Your task to perform on an android device: turn off javascript in the chrome app Image 0: 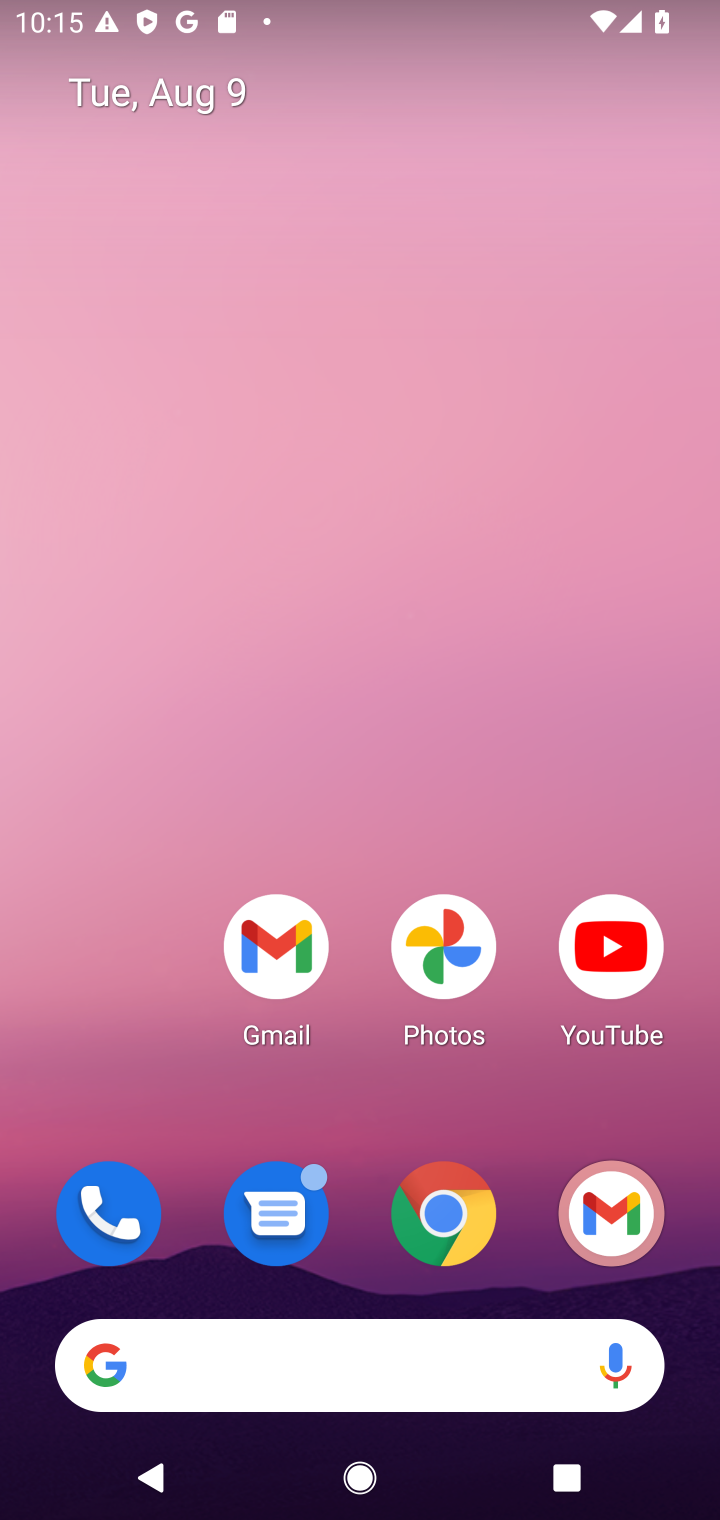
Step 0: press home button
Your task to perform on an android device: turn off javascript in the chrome app Image 1: 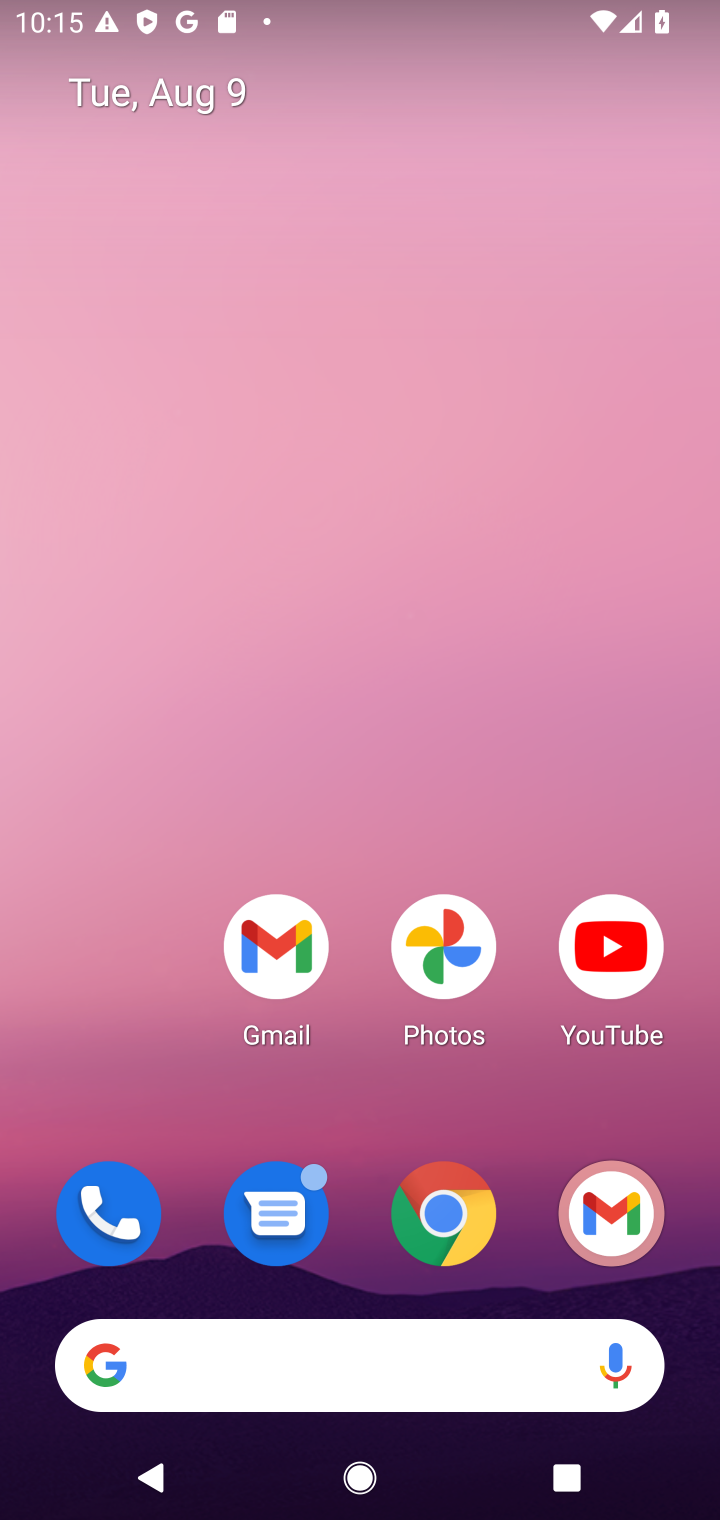
Step 1: click (424, 1261)
Your task to perform on an android device: turn off javascript in the chrome app Image 2: 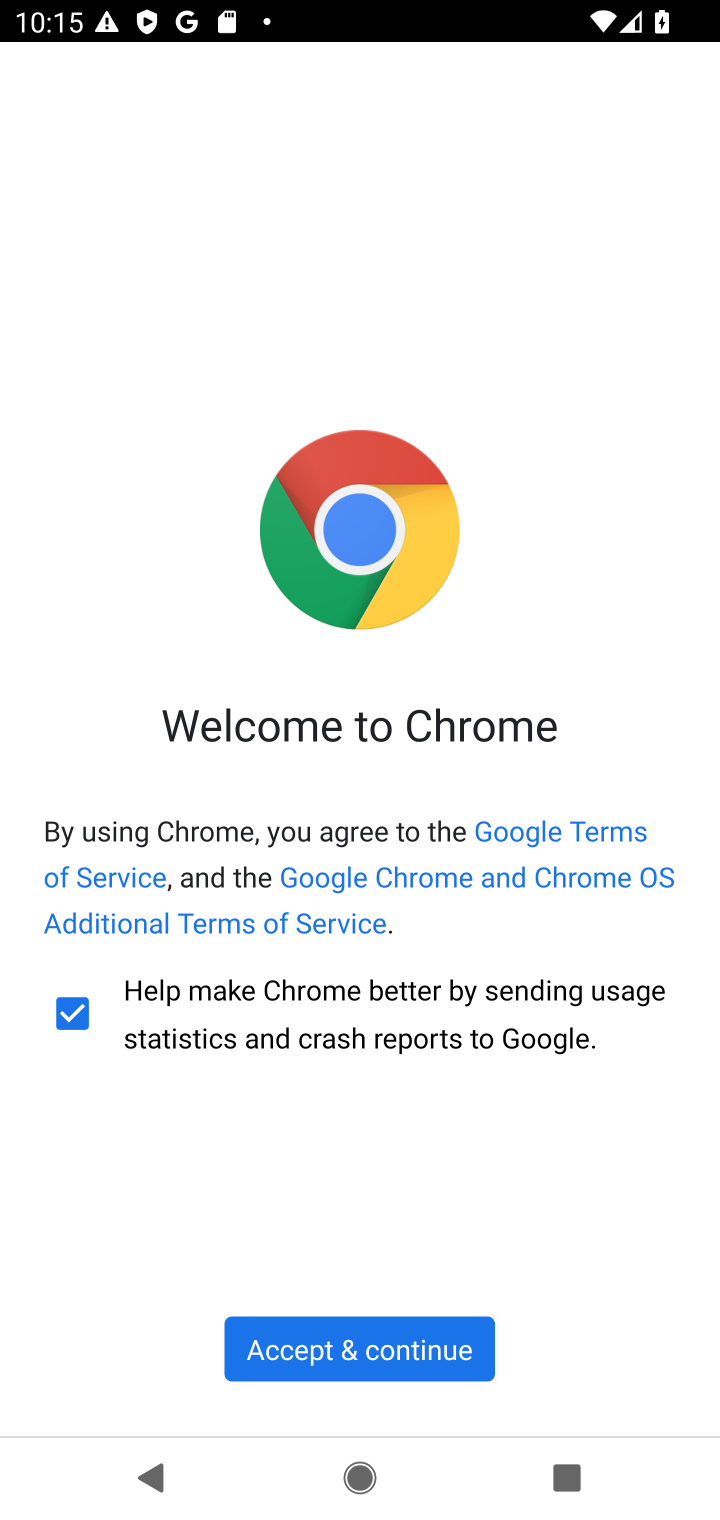
Step 2: click (444, 1346)
Your task to perform on an android device: turn off javascript in the chrome app Image 3: 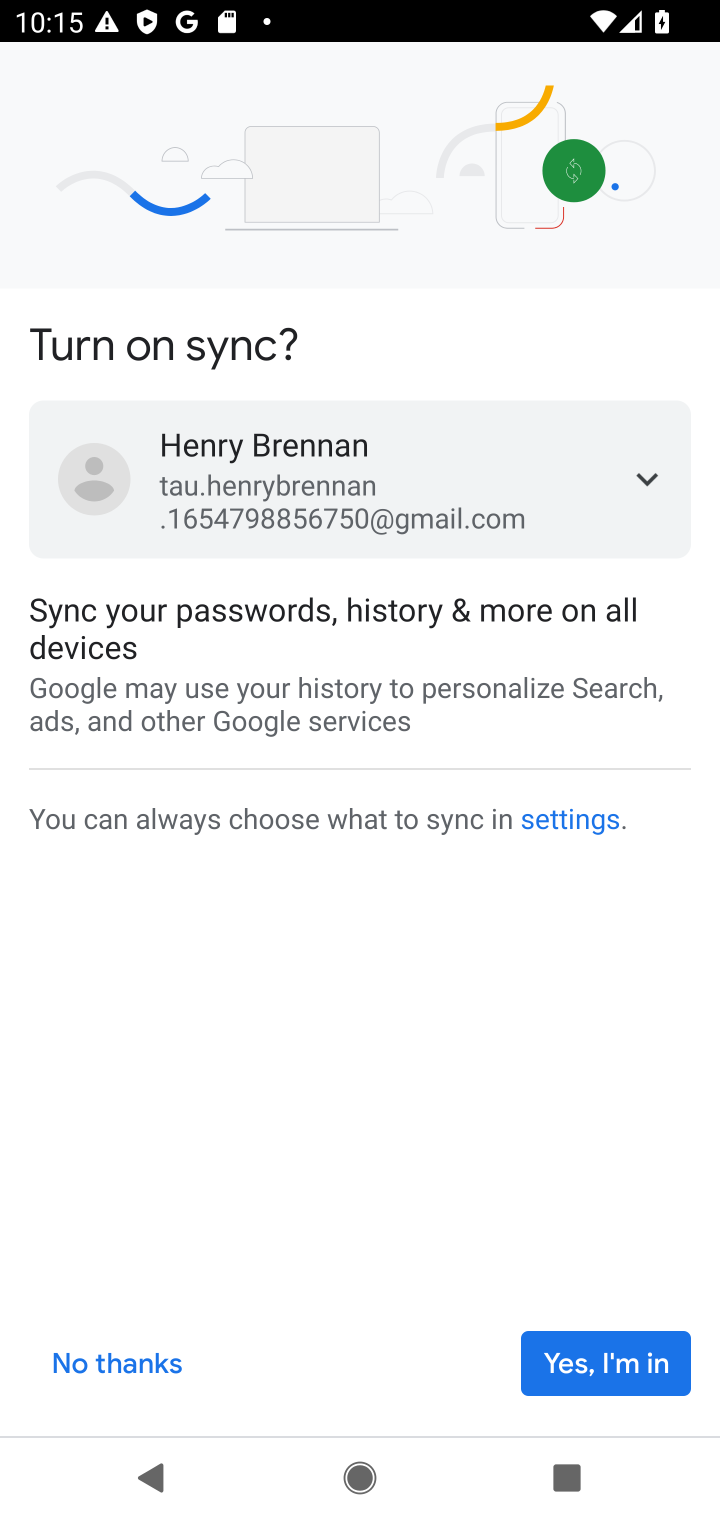
Step 3: click (643, 1361)
Your task to perform on an android device: turn off javascript in the chrome app Image 4: 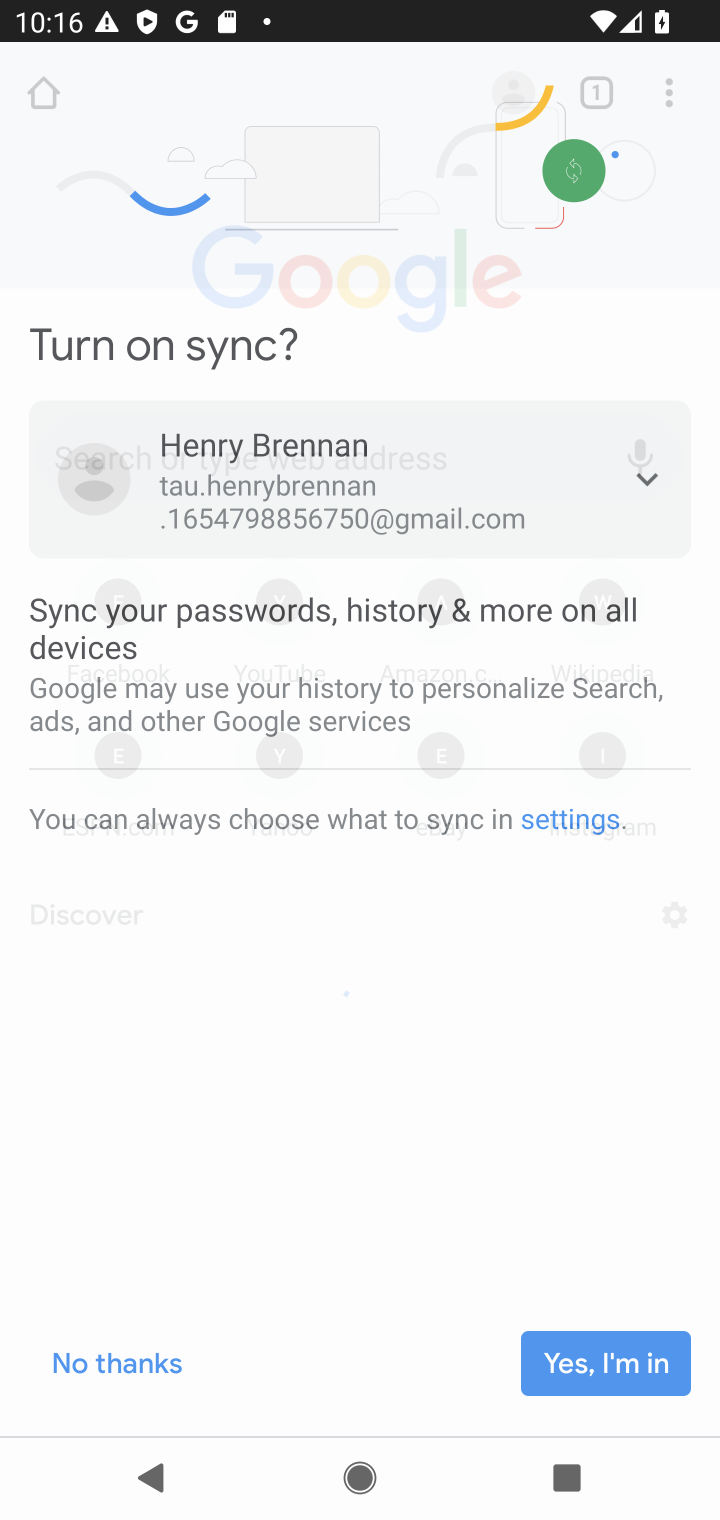
Step 4: click (632, 1348)
Your task to perform on an android device: turn off javascript in the chrome app Image 5: 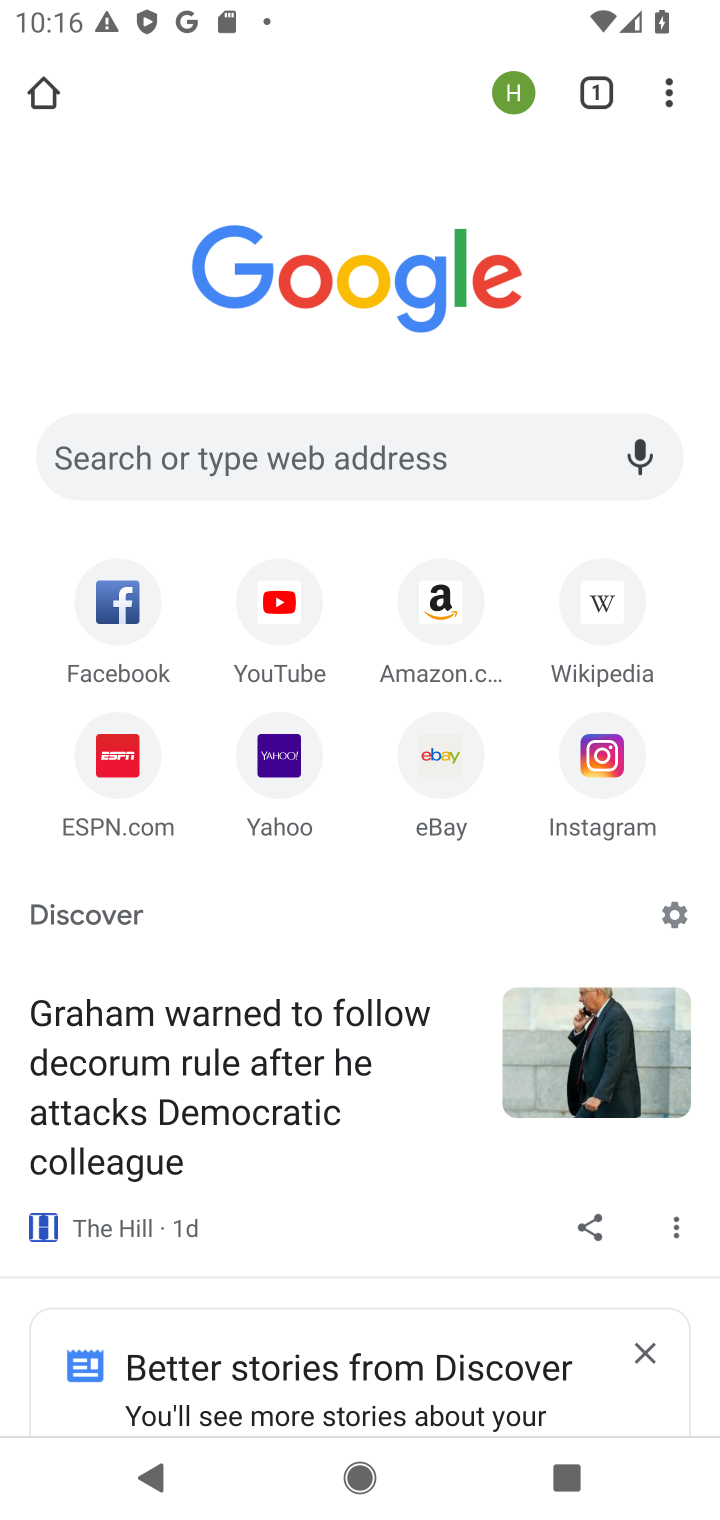
Step 5: drag from (664, 107) to (392, 840)
Your task to perform on an android device: turn off javascript in the chrome app Image 6: 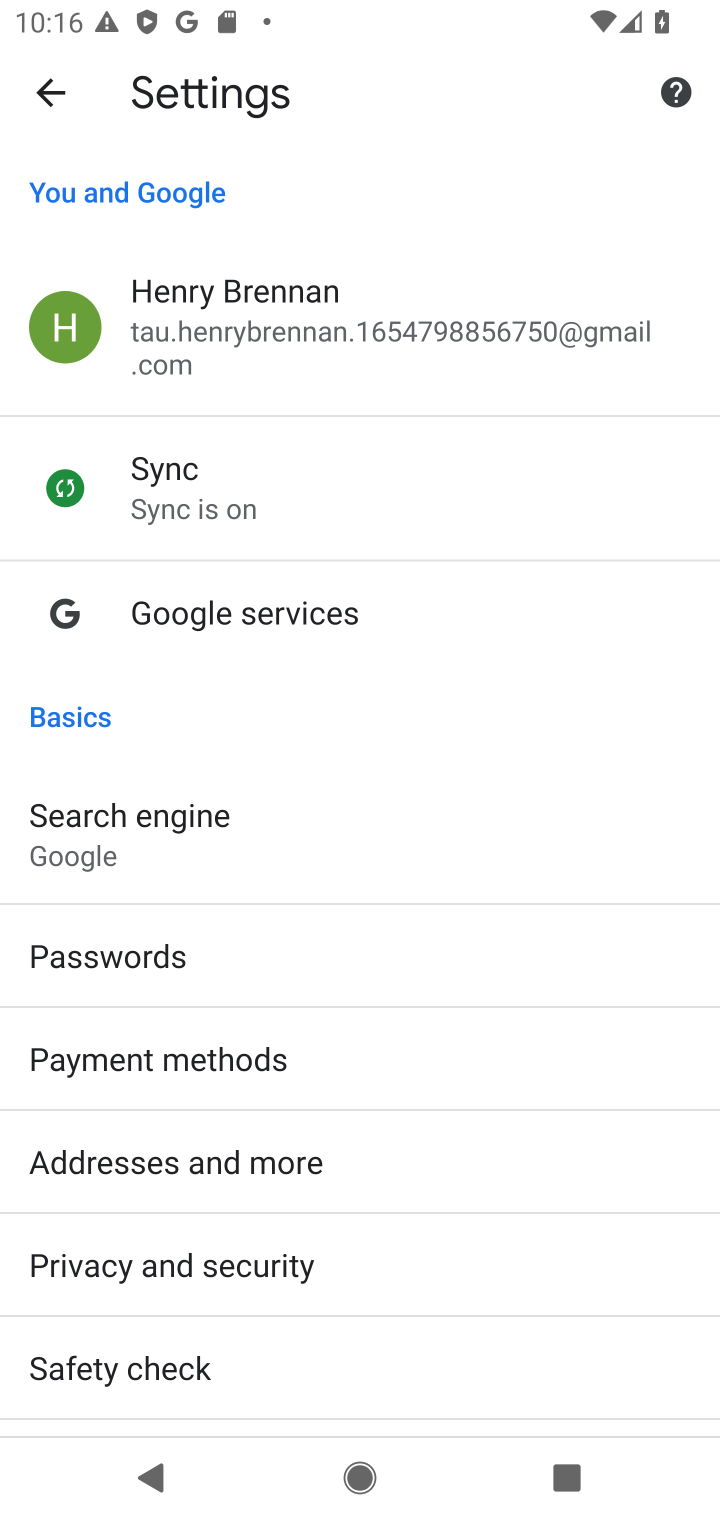
Step 6: drag from (237, 1201) to (244, 439)
Your task to perform on an android device: turn off javascript in the chrome app Image 7: 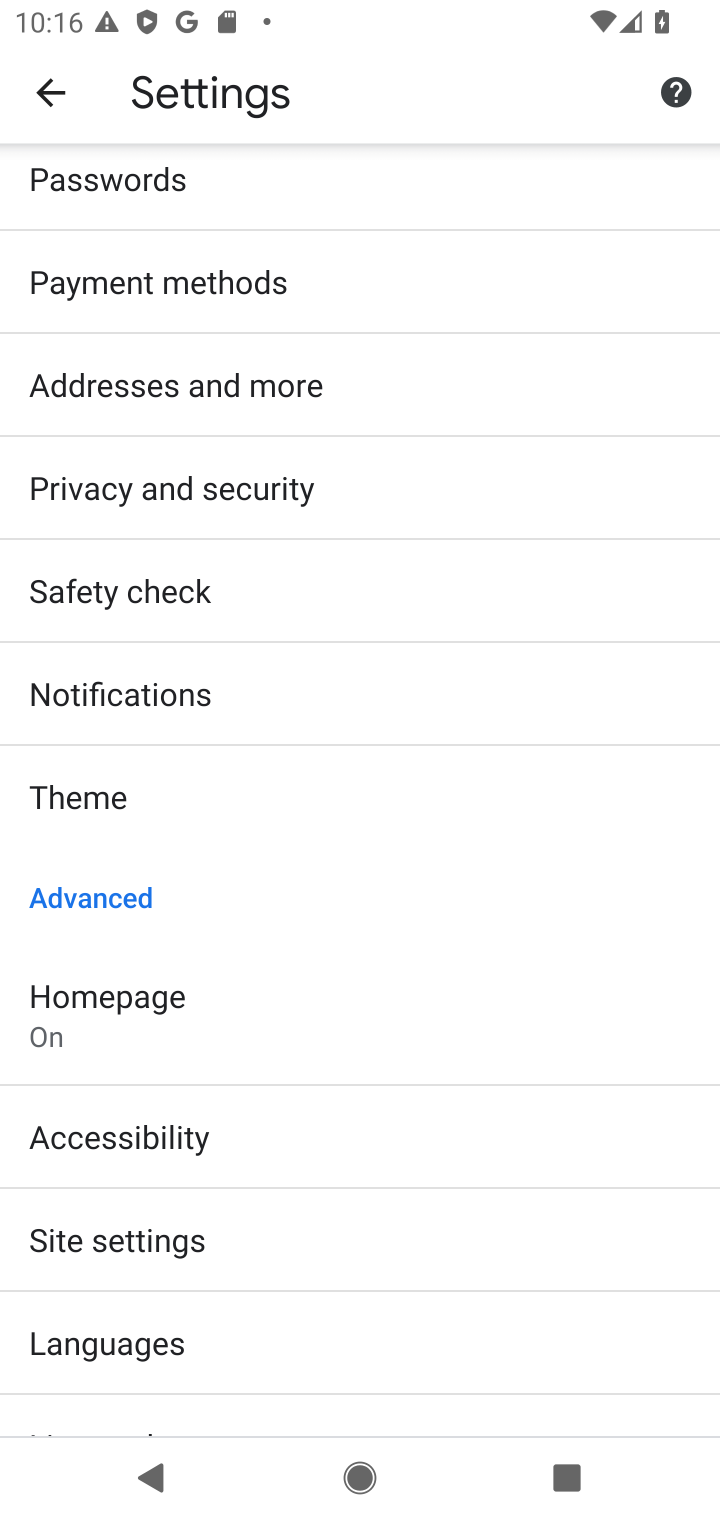
Step 7: click (207, 1241)
Your task to perform on an android device: turn off javascript in the chrome app Image 8: 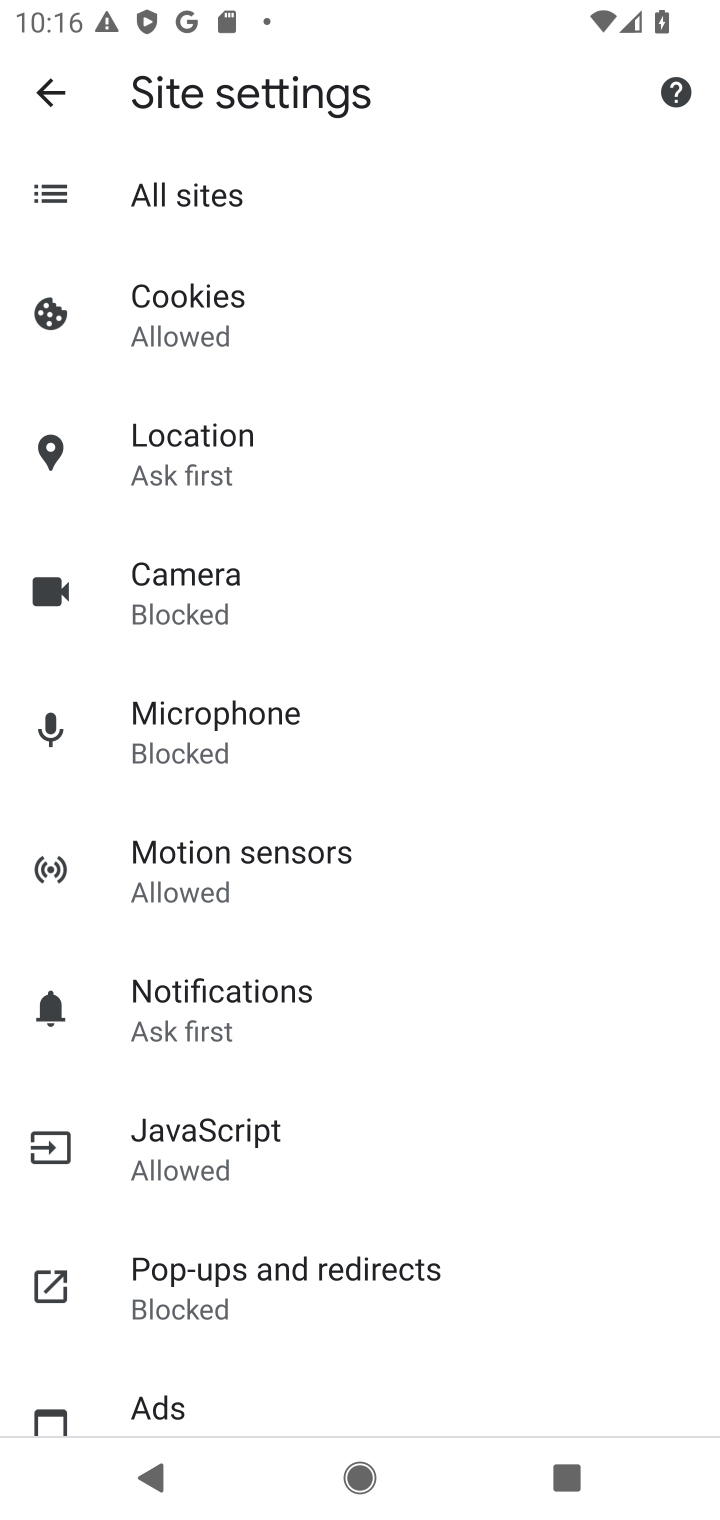
Step 8: click (247, 1122)
Your task to perform on an android device: turn off javascript in the chrome app Image 9: 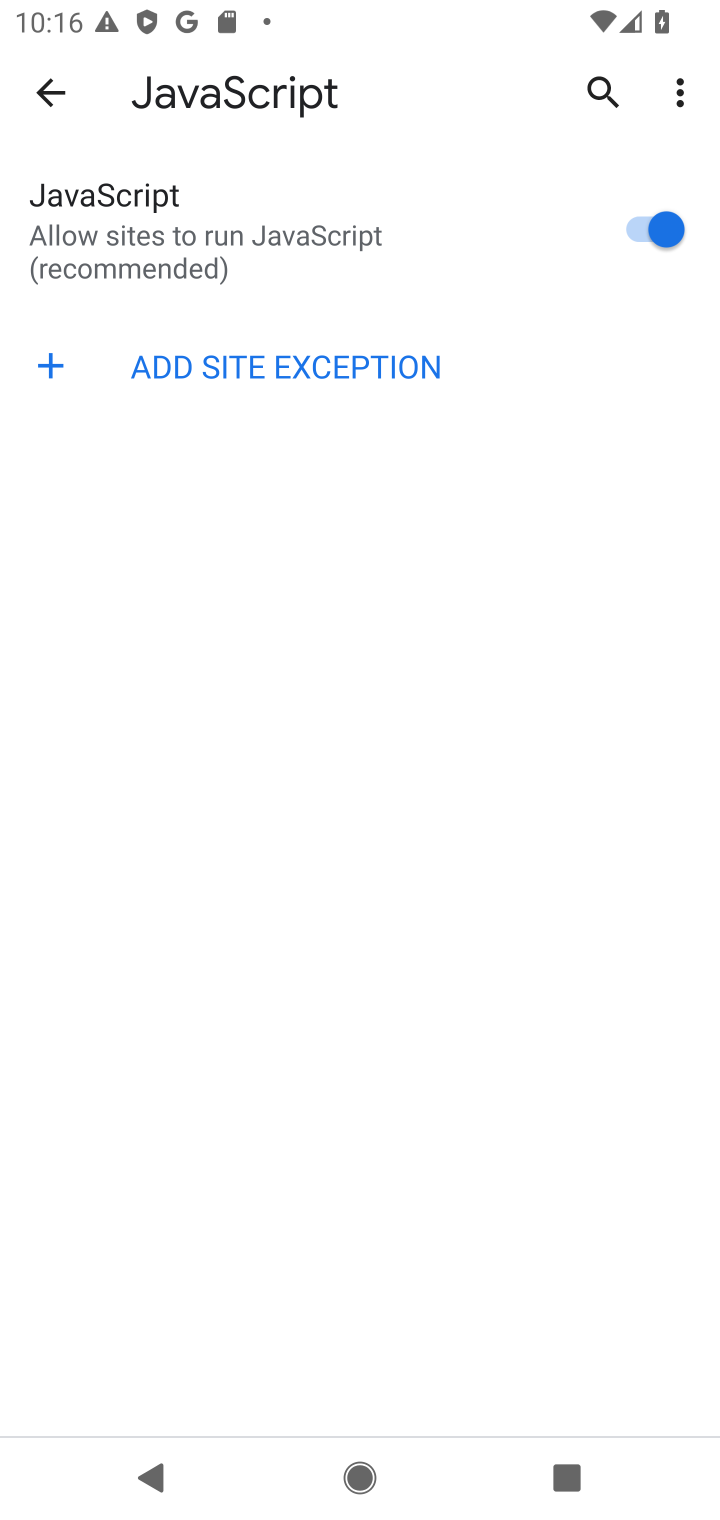
Step 9: click (658, 232)
Your task to perform on an android device: turn off javascript in the chrome app Image 10: 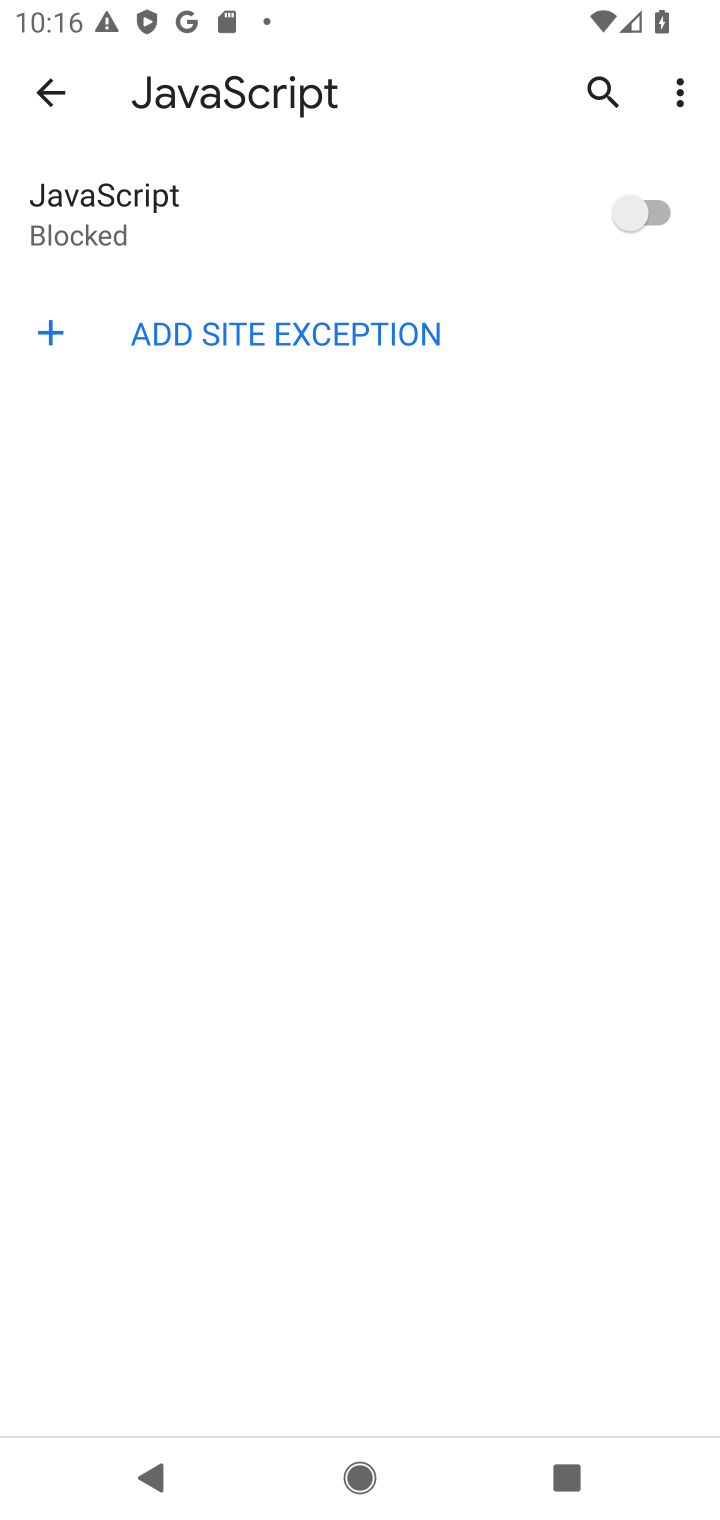
Step 10: task complete